Your task to perform on an android device: change the upload size in google photos Image 0: 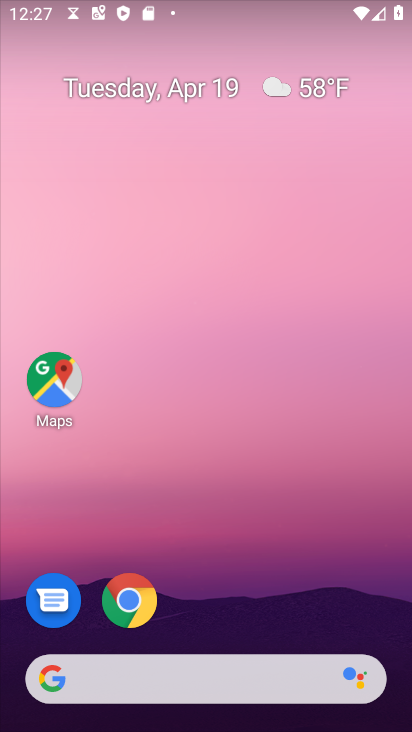
Step 0: drag from (196, 657) to (156, 96)
Your task to perform on an android device: change the upload size in google photos Image 1: 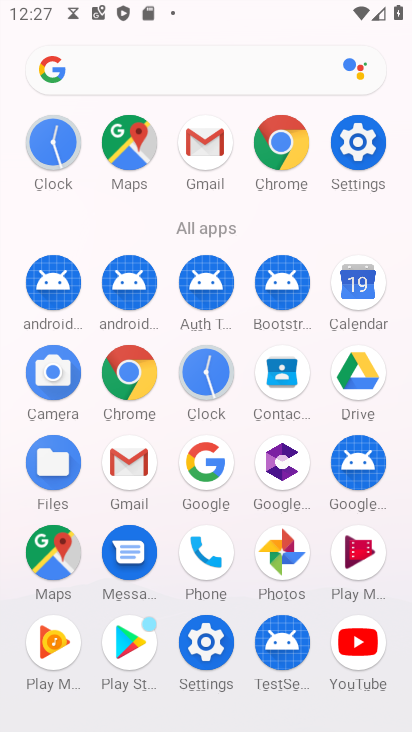
Step 1: click (287, 543)
Your task to perform on an android device: change the upload size in google photos Image 2: 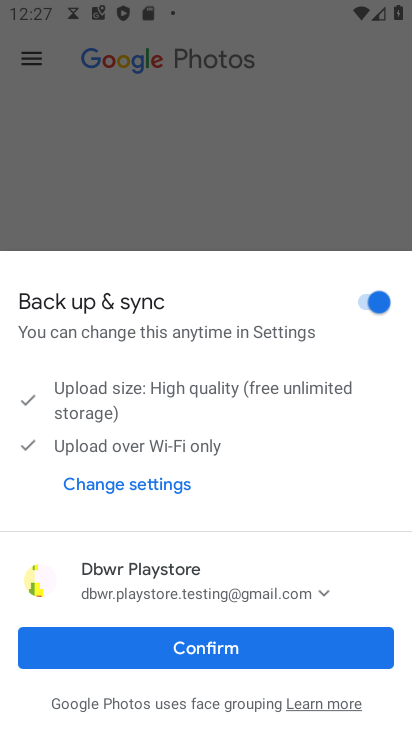
Step 2: click (255, 631)
Your task to perform on an android device: change the upload size in google photos Image 3: 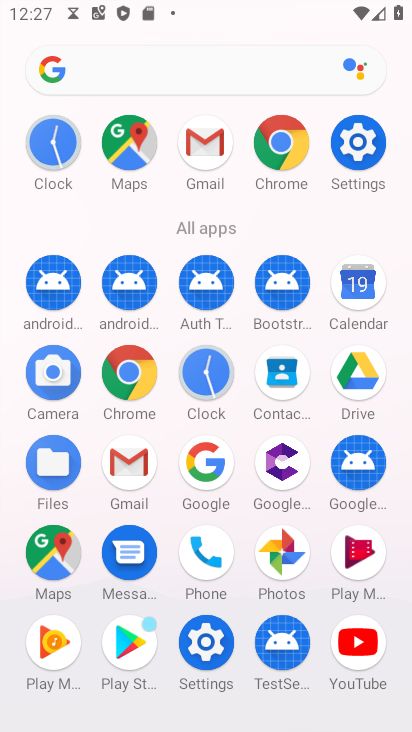
Step 3: click (280, 567)
Your task to perform on an android device: change the upload size in google photos Image 4: 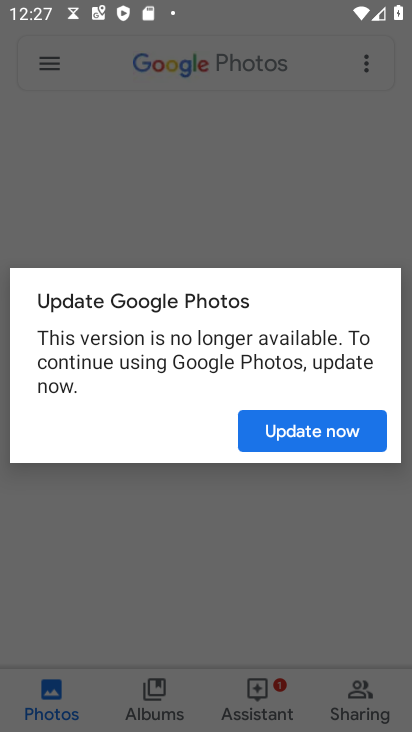
Step 4: click (314, 429)
Your task to perform on an android device: change the upload size in google photos Image 5: 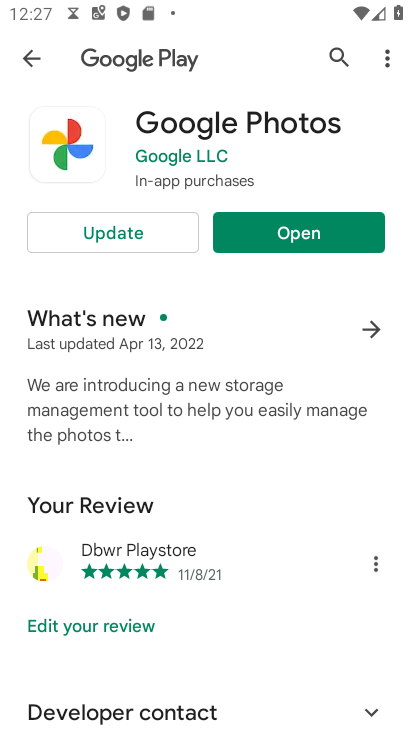
Step 5: click (181, 241)
Your task to perform on an android device: change the upload size in google photos Image 6: 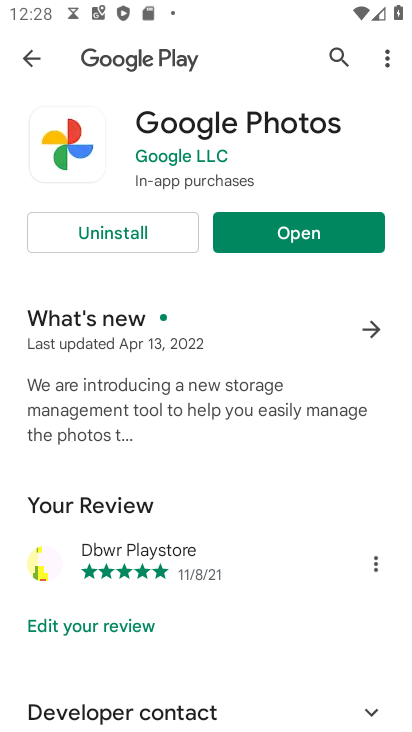
Step 6: click (288, 236)
Your task to perform on an android device: change the upload size in google photos Image 7: 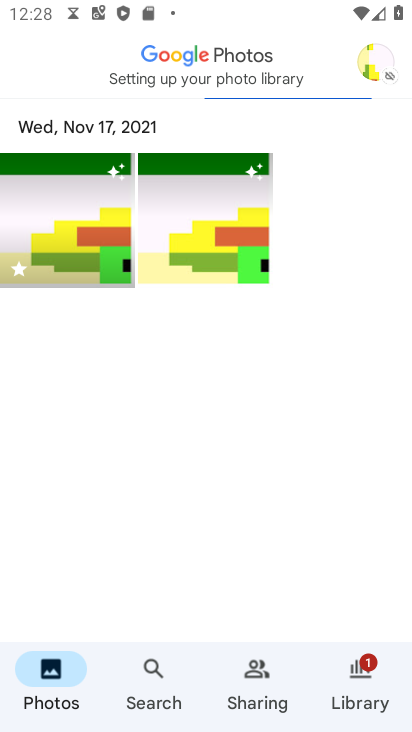
Step 7: click (382, 71)
Your task to perform on an android device: change the upload size in google photos Image 8: 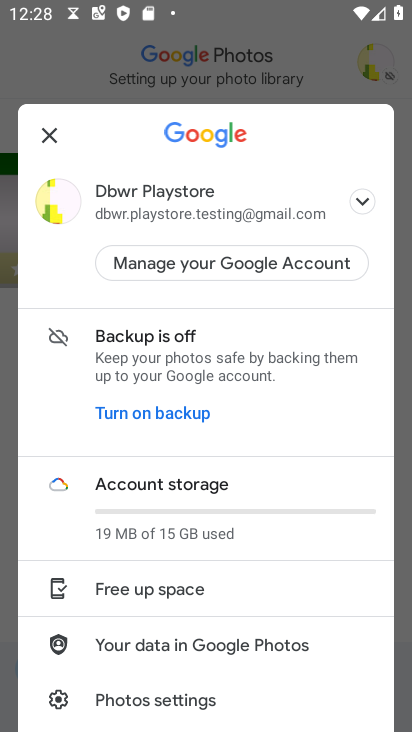
Step 8: click (160, 697)
Your task to perform on an android device: change the upload size in google photos Image 9: 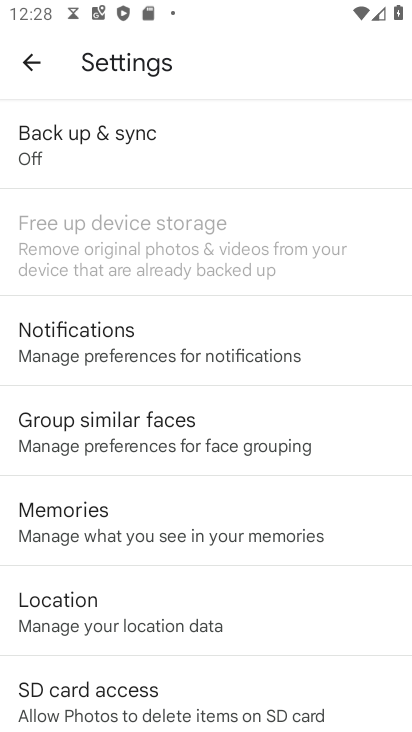
Step 9: drag from (209, 608) to (177, 200)
Your task to perform on an android device: change the upload size in google photos Image 10: 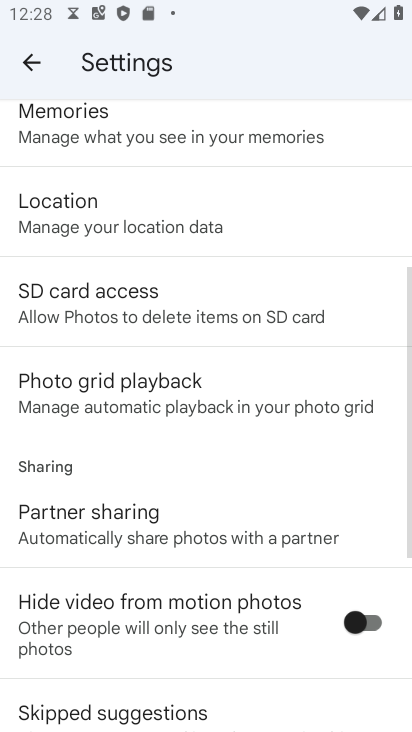
Step 10: drag from (161, 190) to (172, 647)
Your task to perform on an android device: change the upload size in google photos Image 11: 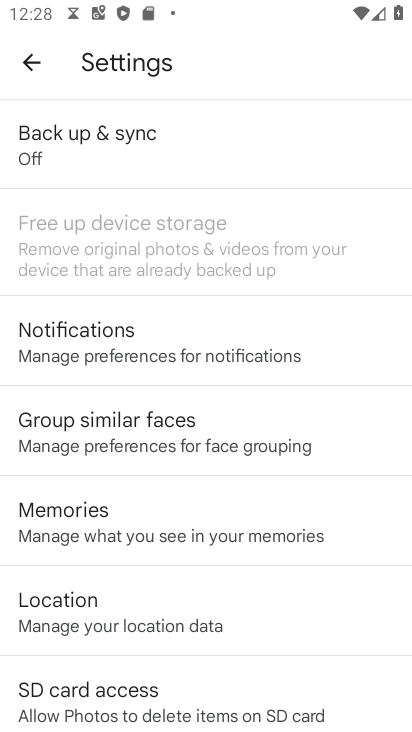
Step 11: click (122, 136)
Your task to perform on an android device: change the upload size in google photos Image 12: 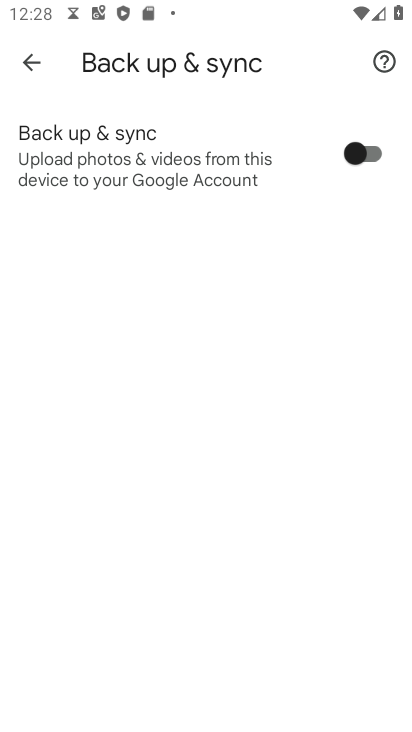
Step 12: click (354, 153)
Your task to perform on an android device: change the upload size in google photos Image 13: 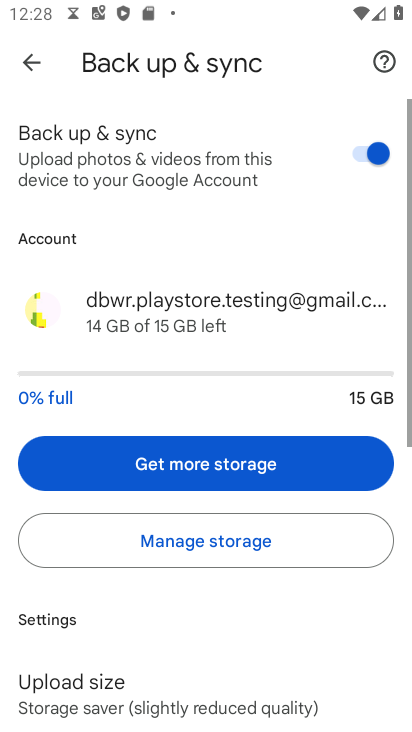
Step 13: drag from (222, 629) to (181, 301)
Your task to perform on an android device: change the upload size in google photos Image 14: 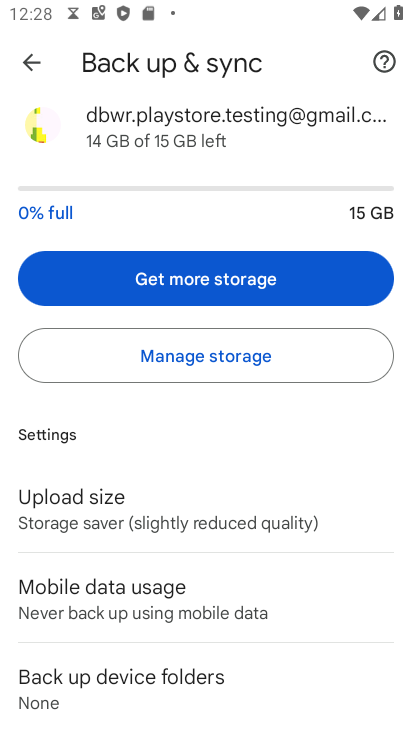
Step 14: click (147, 489)
Your task to perform on an android device: change the upload size in google photos Image 15: 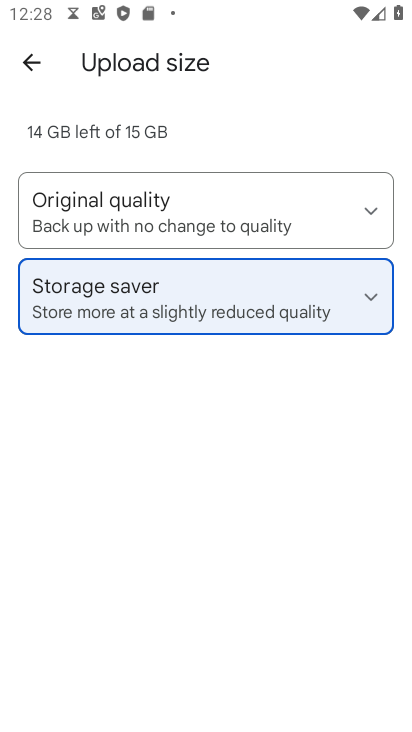
Step 15: click (161, 216)
Your task to perform on an android device: change the upload size in google photos Image 16: 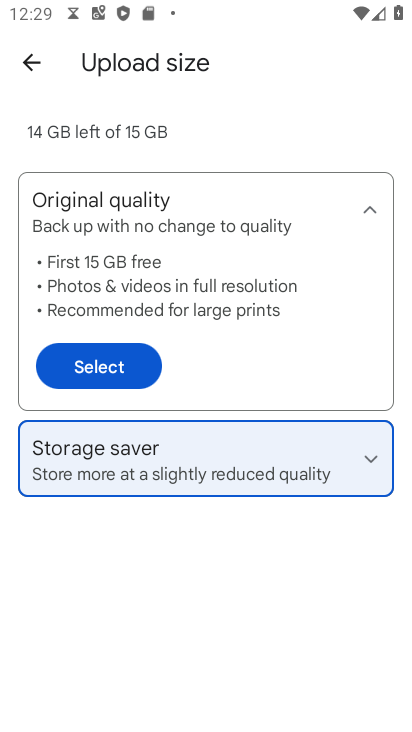
Step 16: click (91, 358)
Your task to perform on an android device: change the upload size in google photos Image 17: 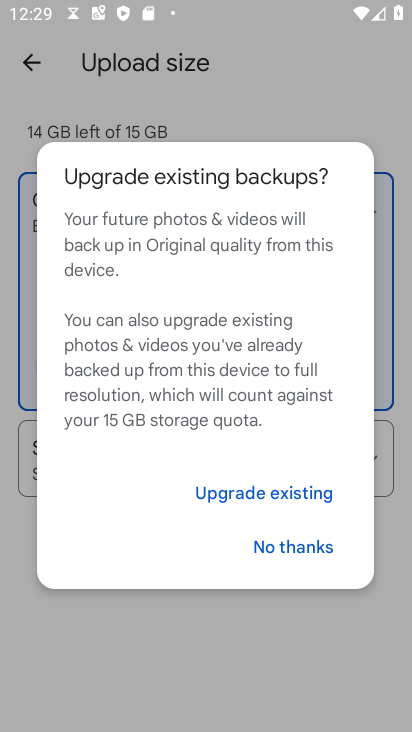
Step 17: task complete